Your task to perform on an android device: What's on the menu at Subway? Image 0: 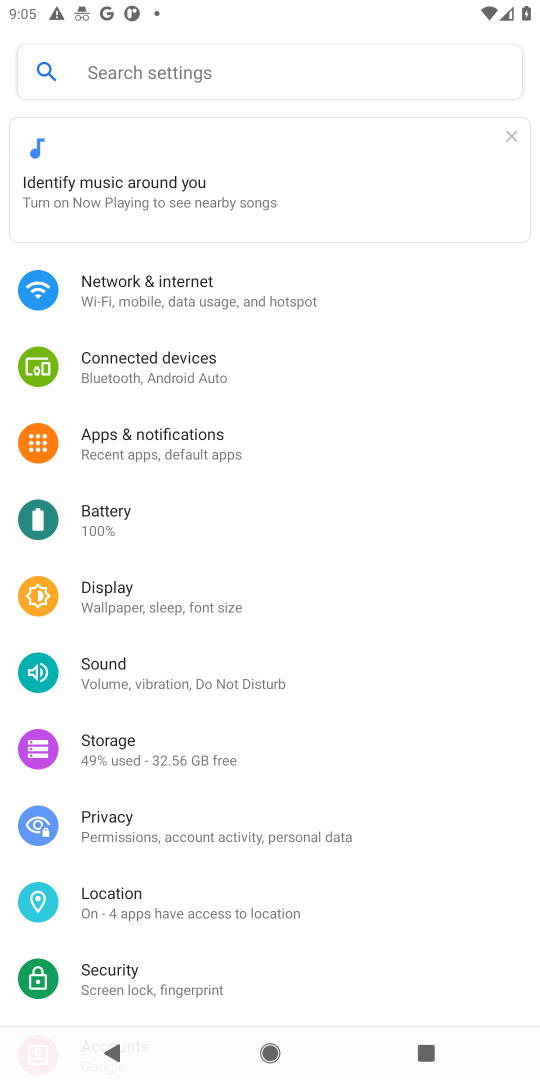
Step 0: press home button
Your task to perform on an android device: What's on the menu at Subway? Image 1: 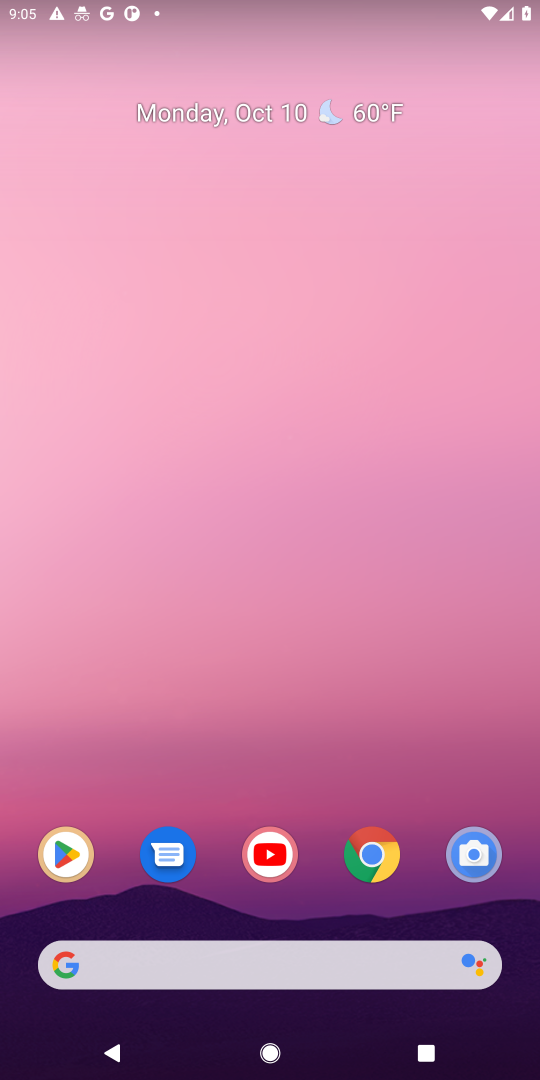
Step 1: click (374, 852)
Your task to perform on an android device: What's on the menu at Subway? Image 2: 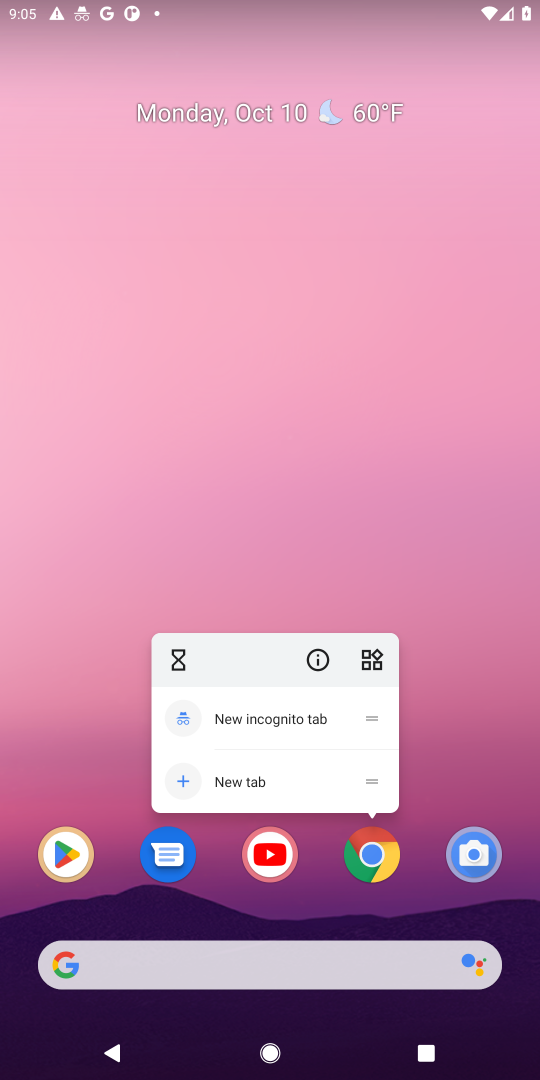
Step 2: click (373, 857)
Your task to perform on an android device: What's on the menu at Subway? Image 3: 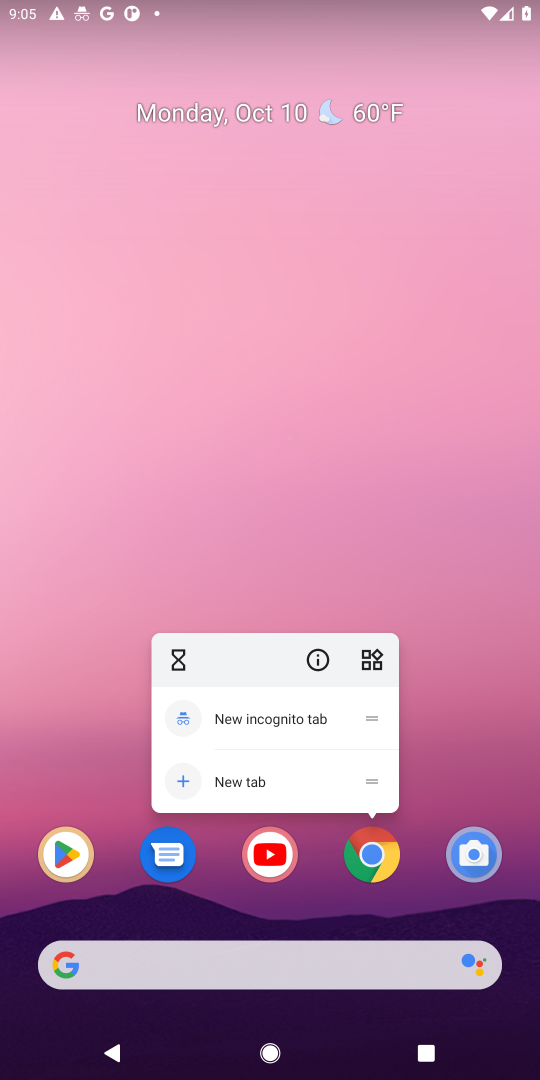
Step 3: click (375, 854)
Your task to perform on an android device: What's on the menu at Subway? Image 4: 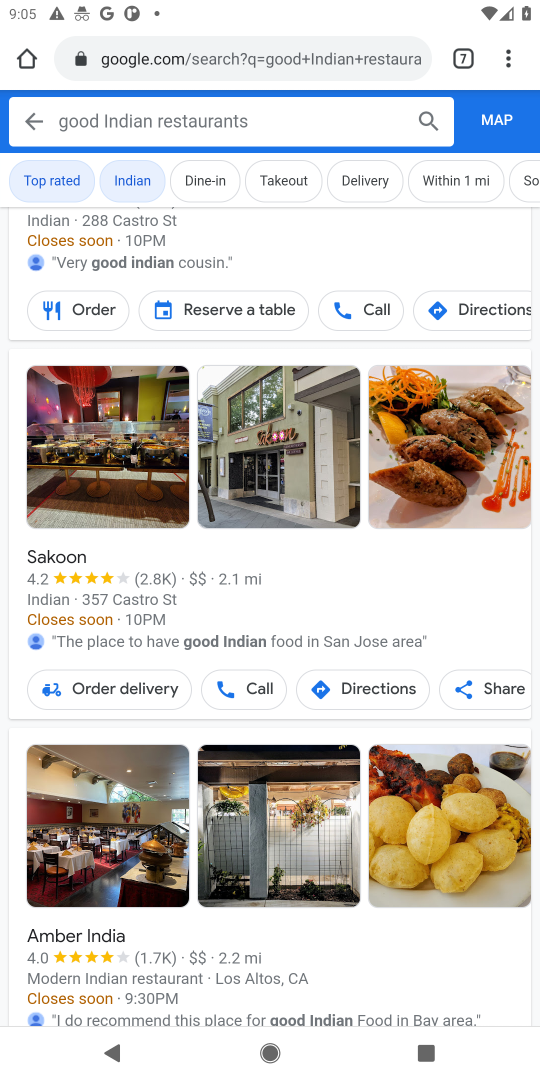
Step 4: click (362, 60)
Your task to perform on an android device: What's on the menu at Subway? Image 5: 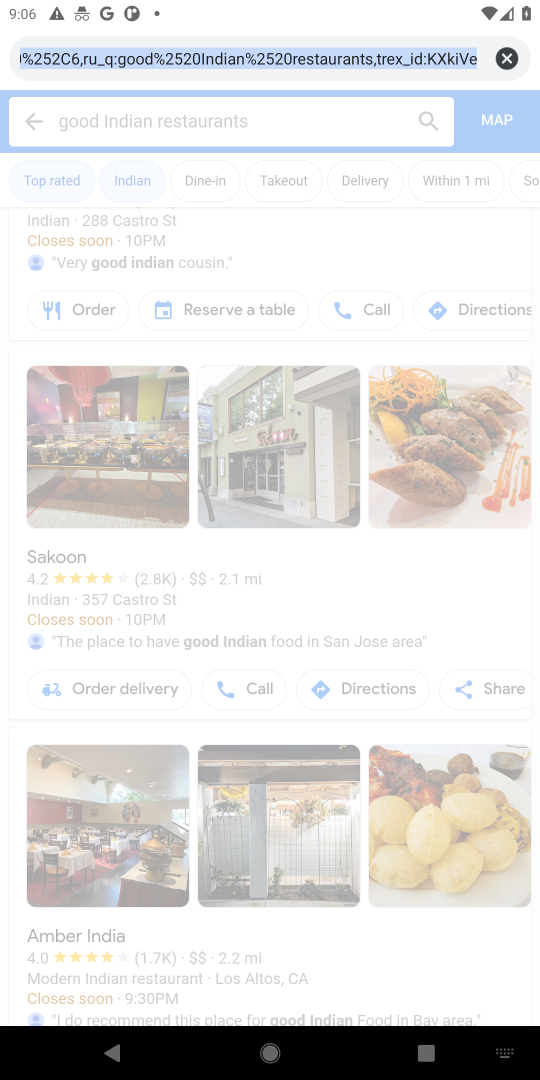
Step 5: click (507, 57)
Your task to perform on an android device: What's on the menu at Subway? Image 6: 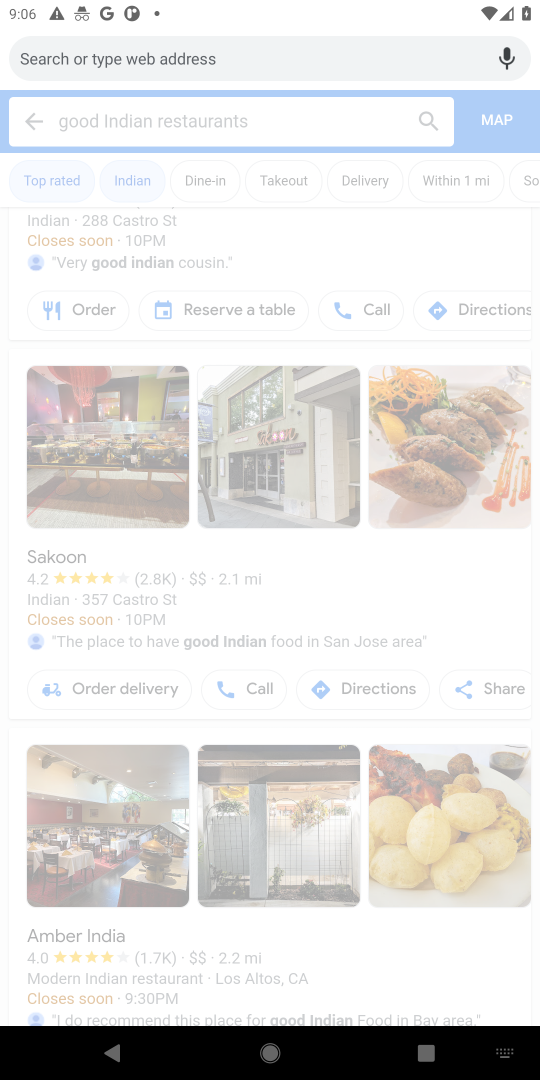
Step 6: type " menu at Subway"
Your task to perform on an android device: What's on the menu at Subway? Image 7: 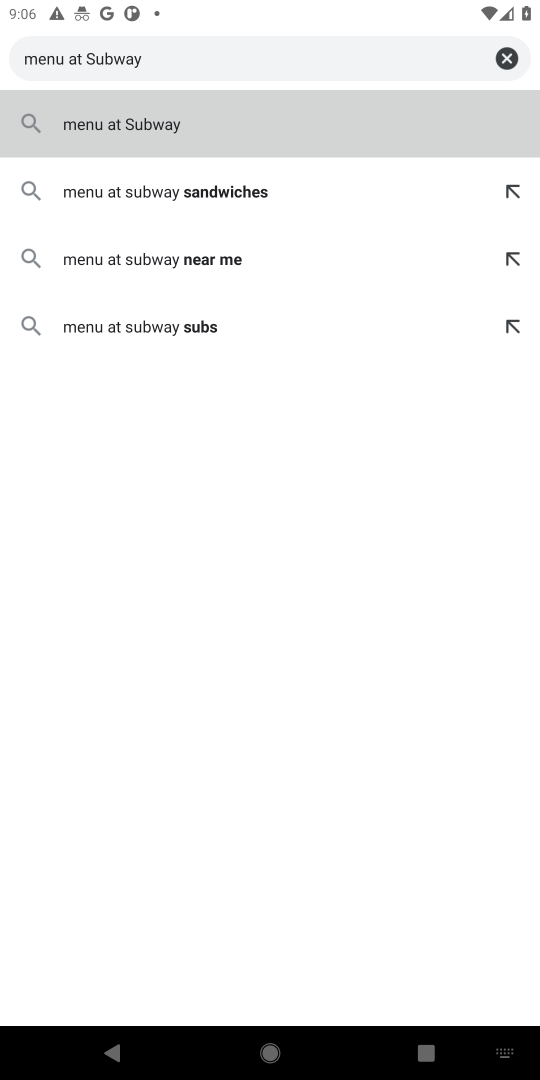
Step 7: press enter
Your task to perform on an android device: What's on the menu at Subway? Image 8: 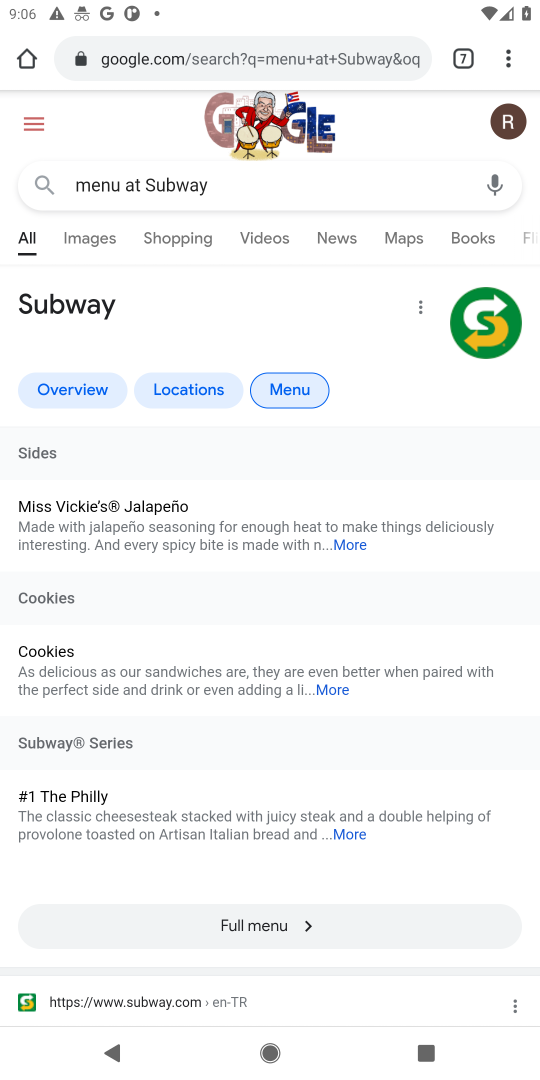
Step 8: drag from (206, 827) to (380, 481)
Your task to perform on an android device: What's on the menu at Subway? Image 9: 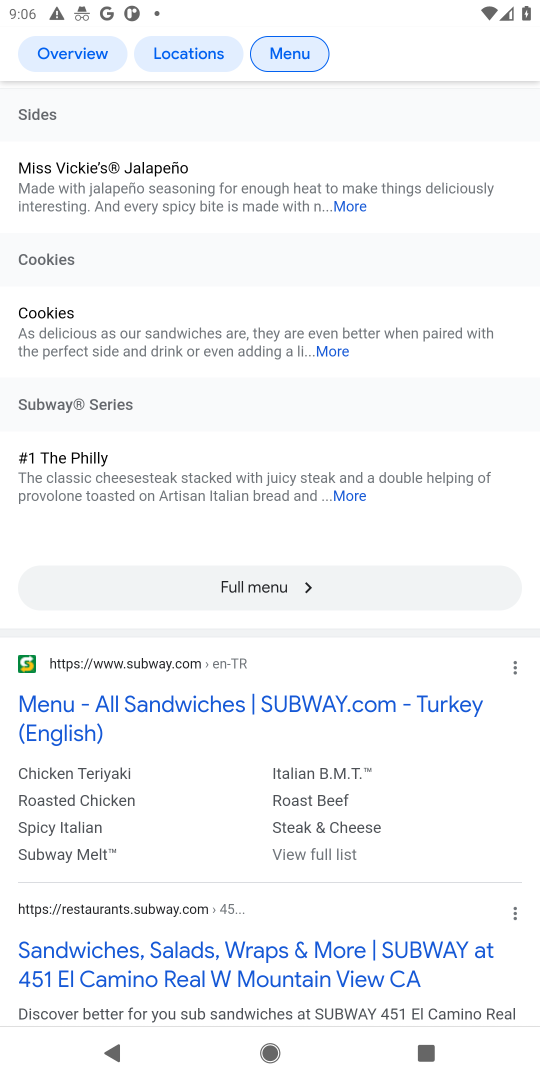
Step 9: click (179, 706)
Your task to perform on an android device: What's on the menu at Subway? Image 10: 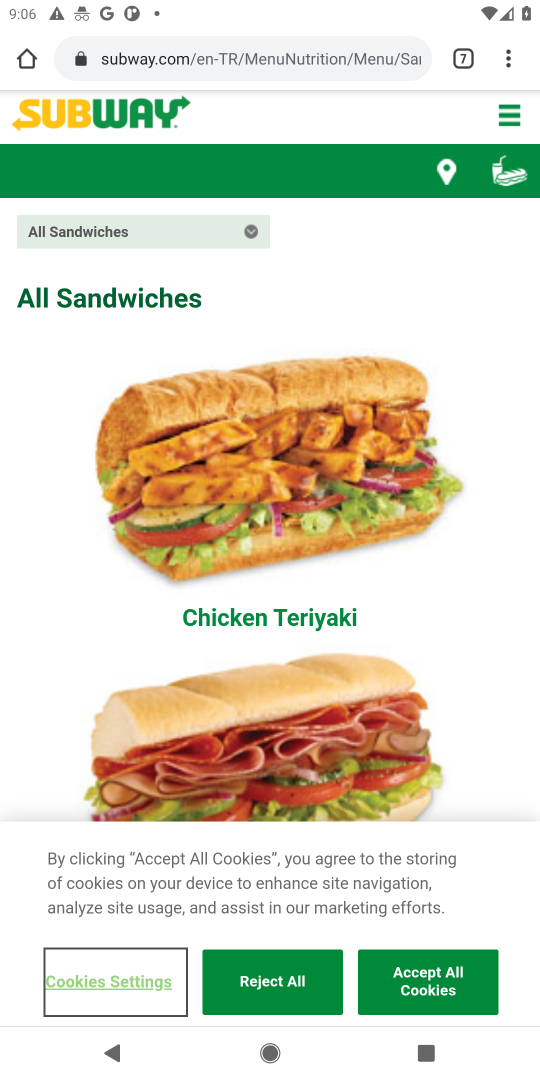
Step 10: click (415, 979)
Your task to perform on an android device: What's on the menu at Subway? Image 11: 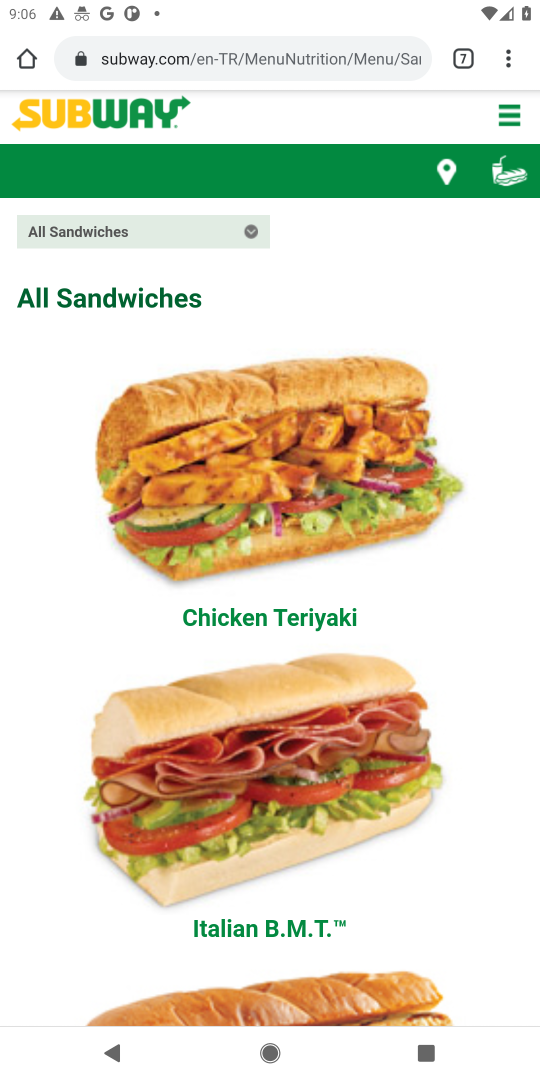
Step 11: task complete